Your task to perform on an android device: View the shopping cart on newegg. Image 0: 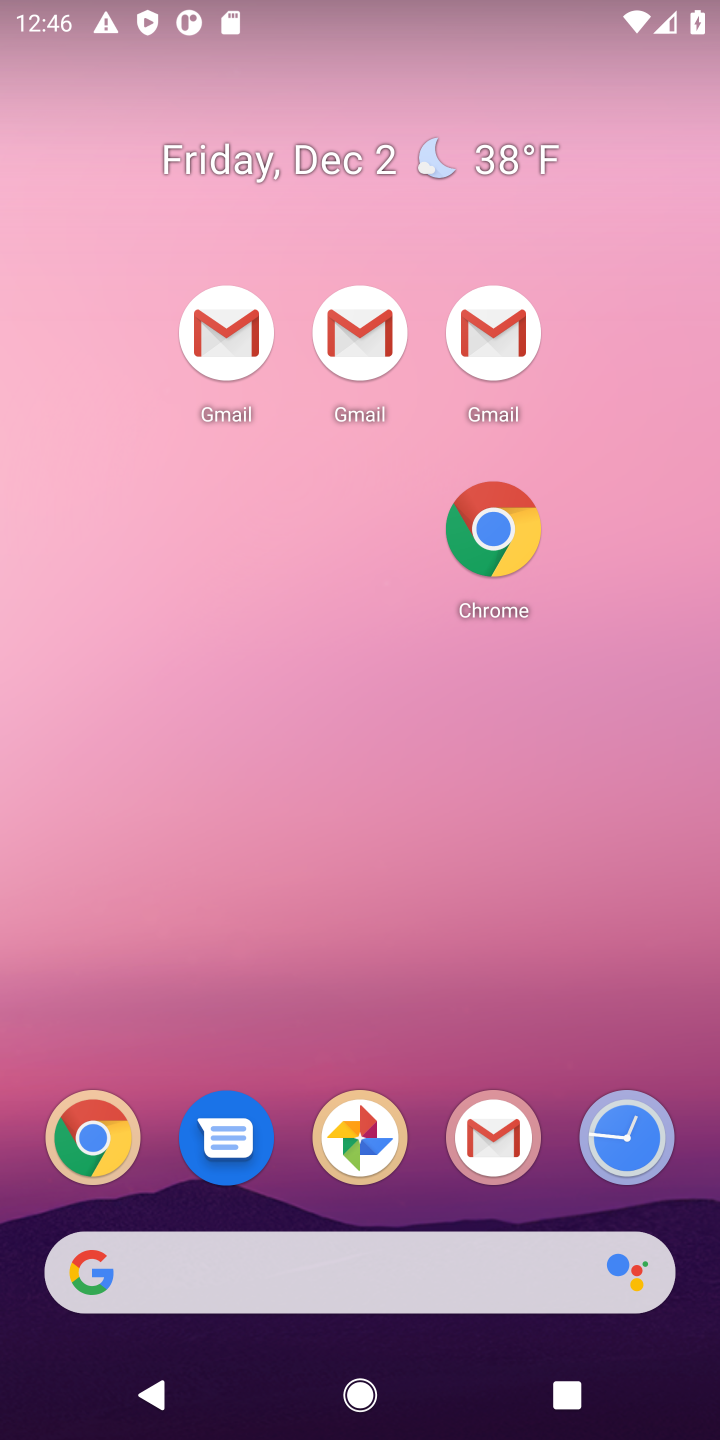
Step 0: drag from (380, 1198) to (405, 483)
Your task to perform on an android device: View the shopping cart on newegg. Image 1: 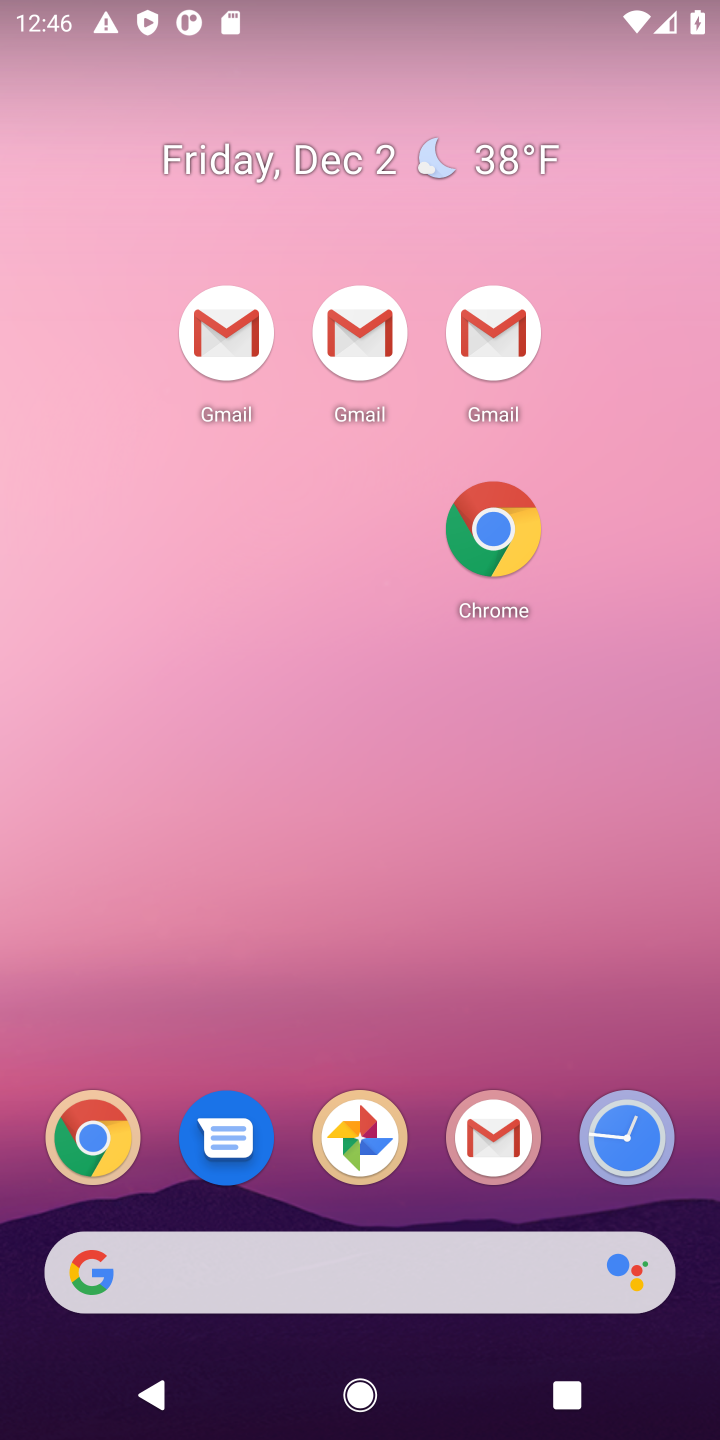
Step 1: drag from (435, 1012) to (423, 5)
Your task to perform on an android device: View the shopping cart on newegg. Image 2: 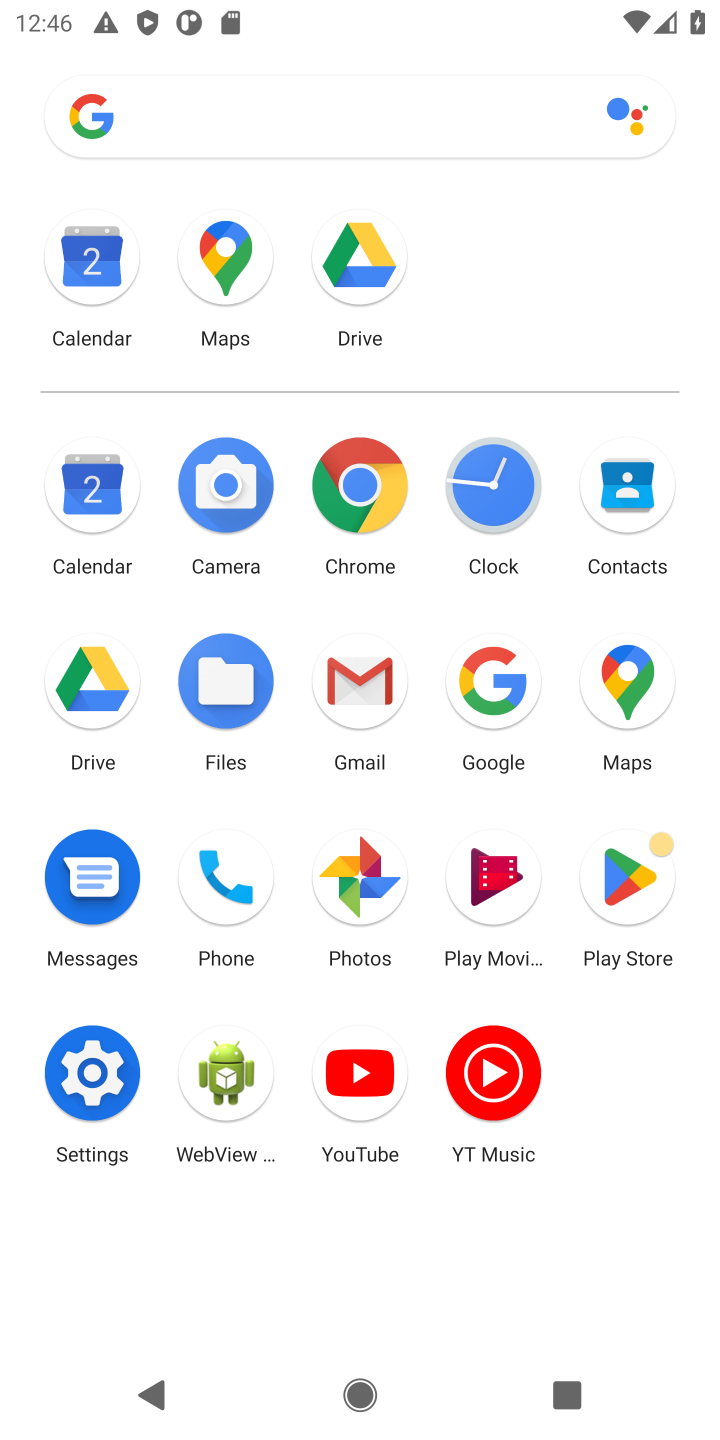
Step 2: click (502, 712)
Your task to perform on an android device: View the shopping cart on newegg. Image 3: 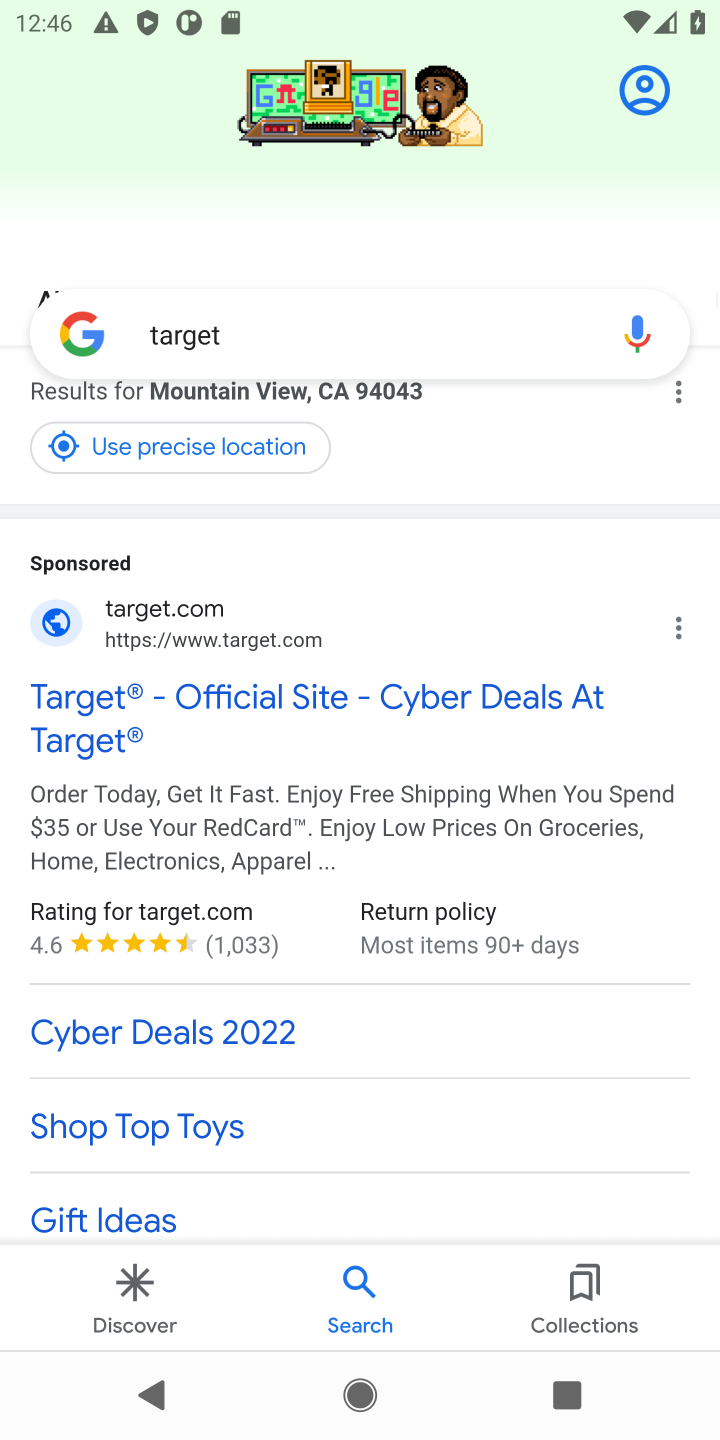
Step 3: click (456, 363)
Your task to perform on an android device: View the shopping cart on newegg. Image 4: 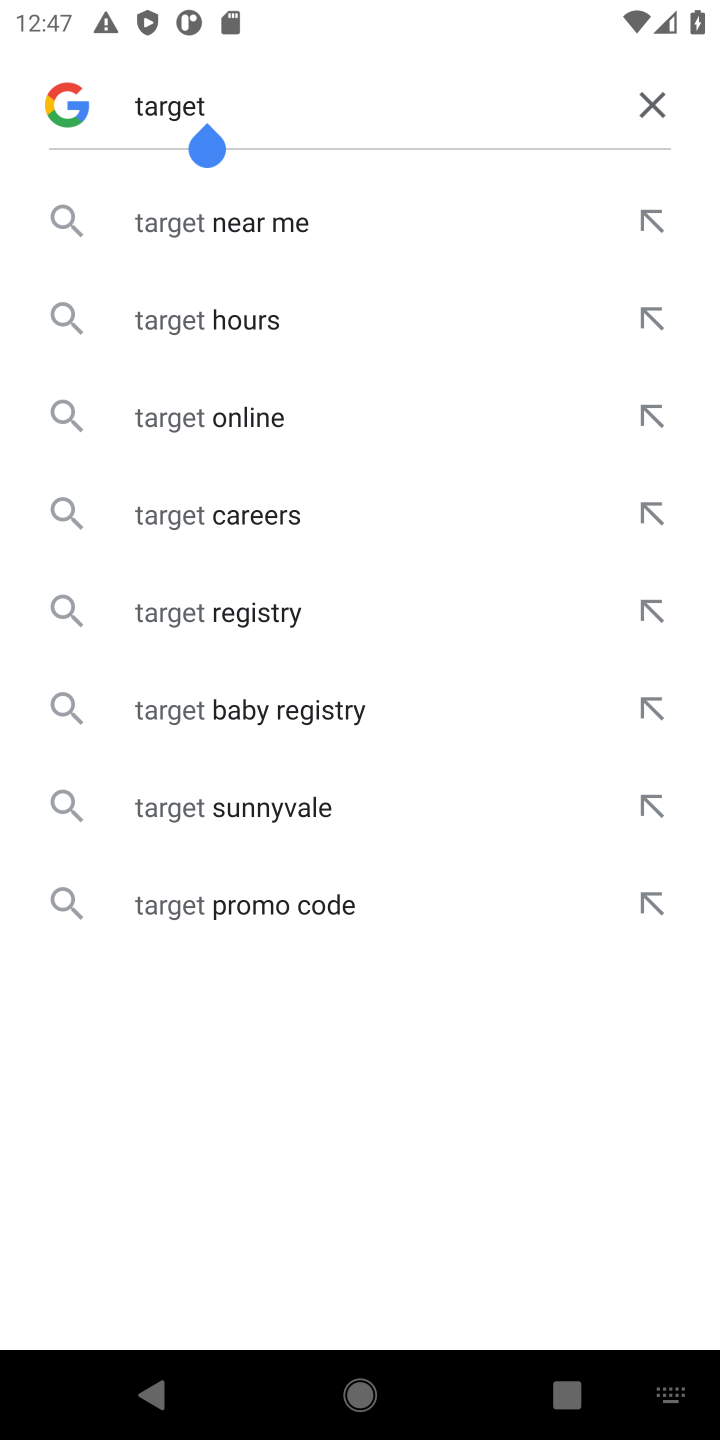
Step 4: click (654, 104)
Your task to perform on an android device: View the shopping cart on newegg. Image 5: 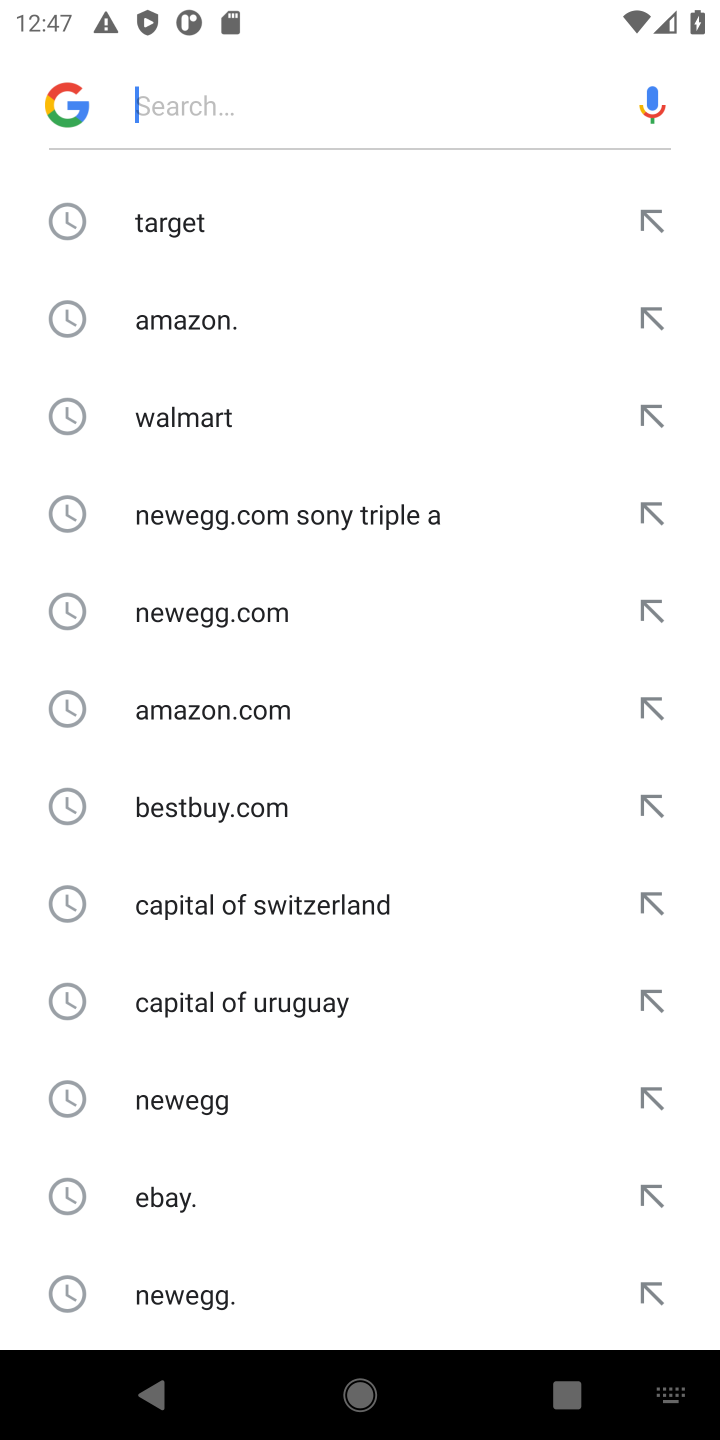
Step 5: type "newegg"
Your task to perform on an android device: View the shopping cart on newegg. Image 6: 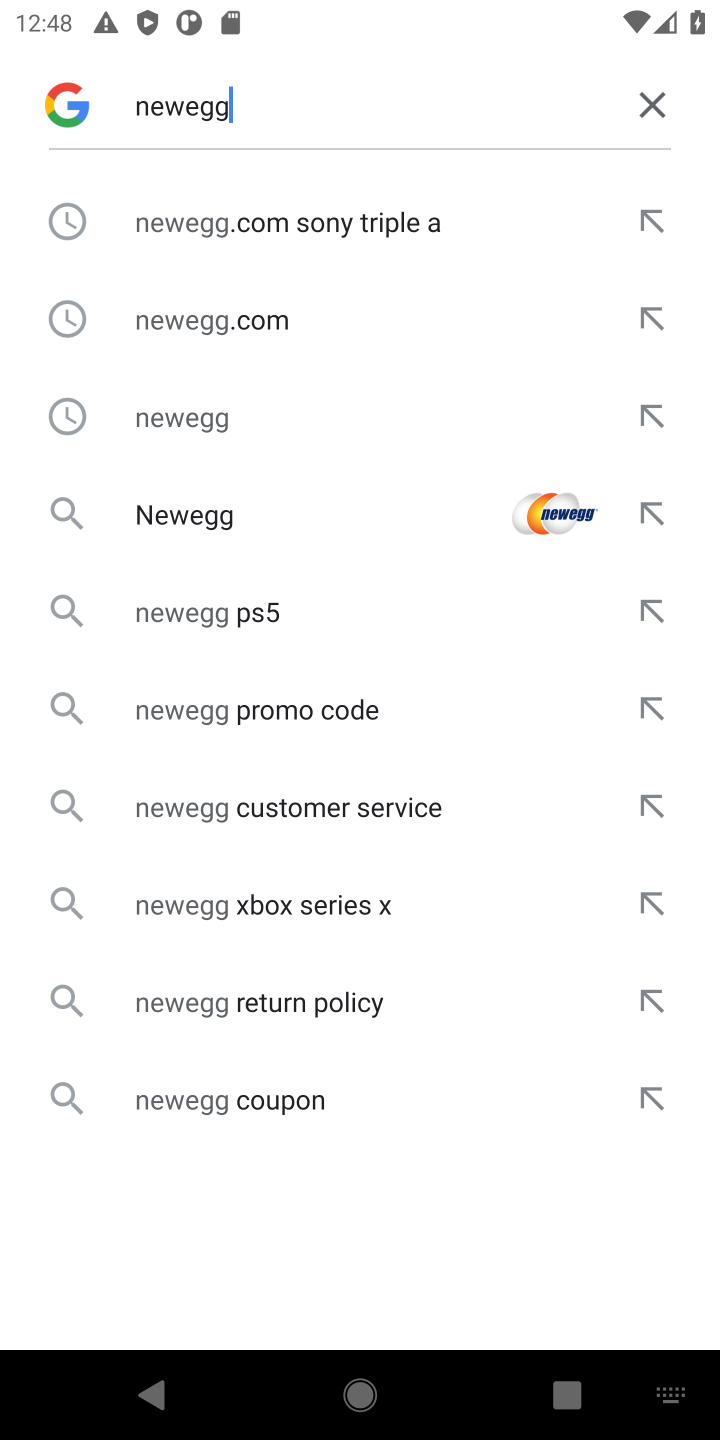
Step 6: click (342, 313)
Your task to perform on an android device: View the shopping cart on newegg. Image 7: 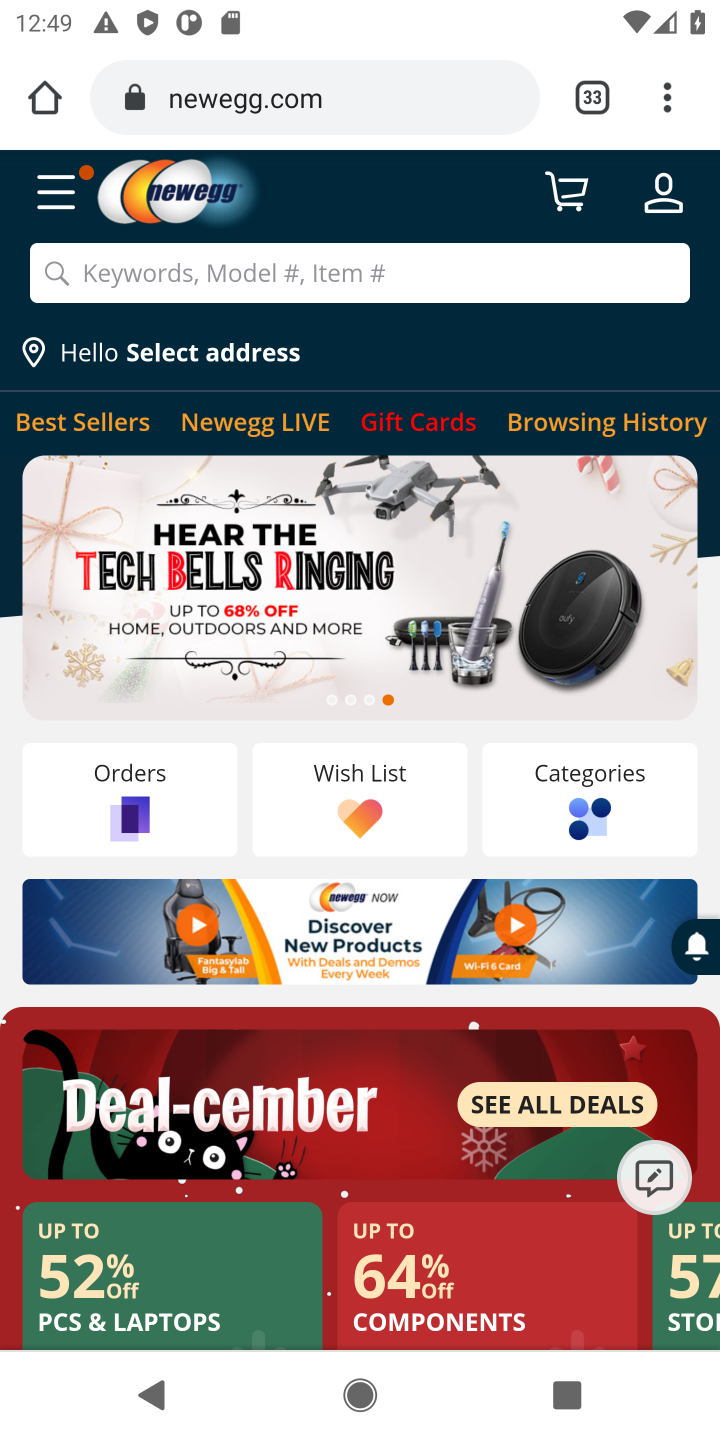
Step 7: click (576, 193)
Your task to perform on an android device: View the shopping cart on newegg. Image 8: 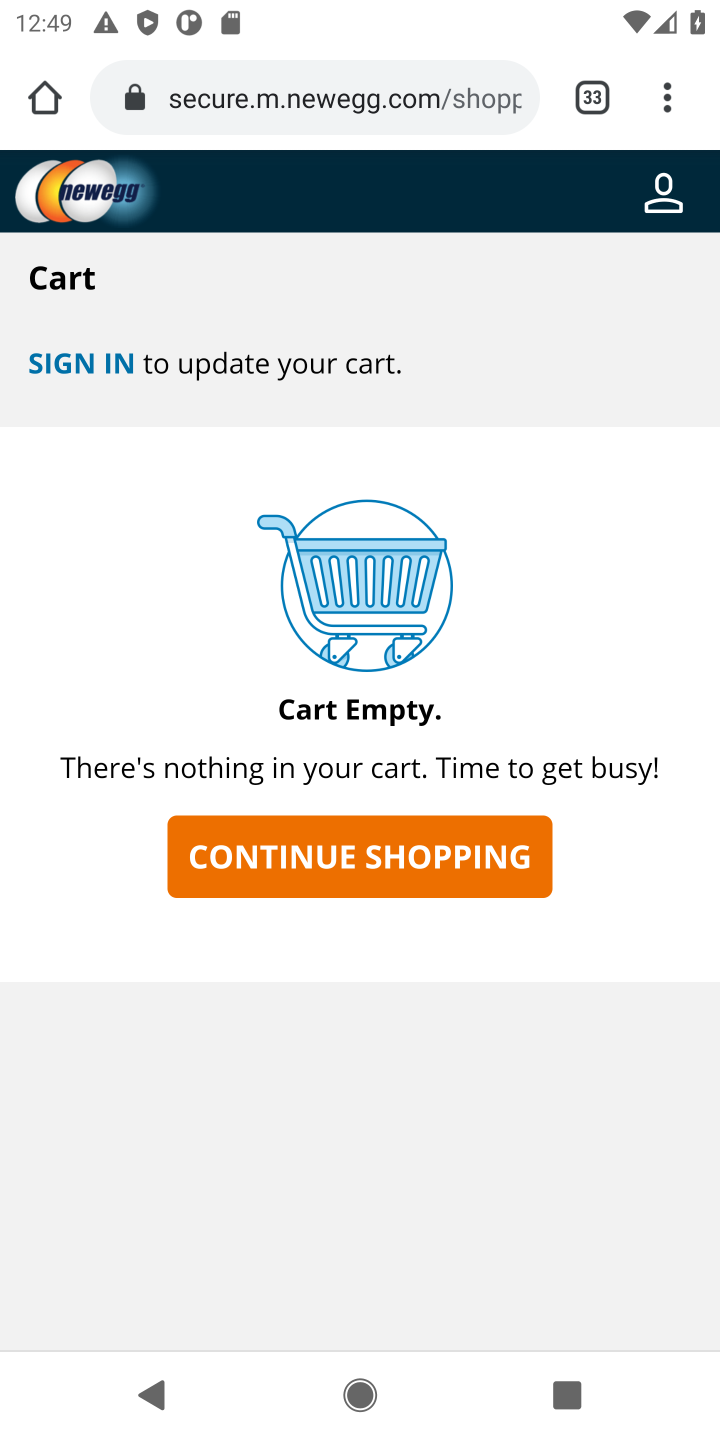
Step 8: task complete